Your task to perform on an android device: change text size in settings app Image 0: 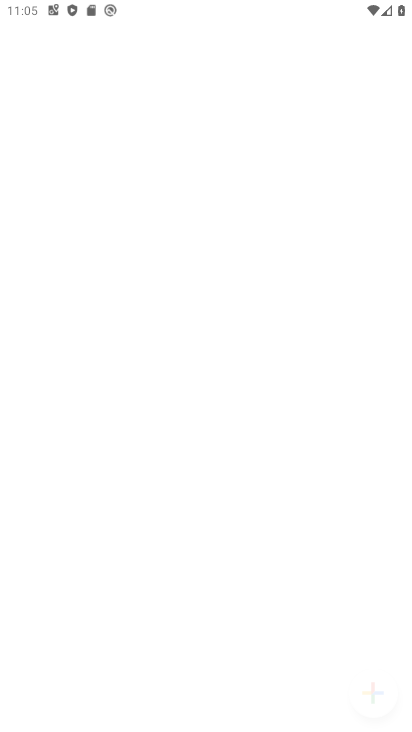
Step 0: drag from (339, 592) to (215, 134)
Your task to perform on an android device: change text size in settings app Image 1: 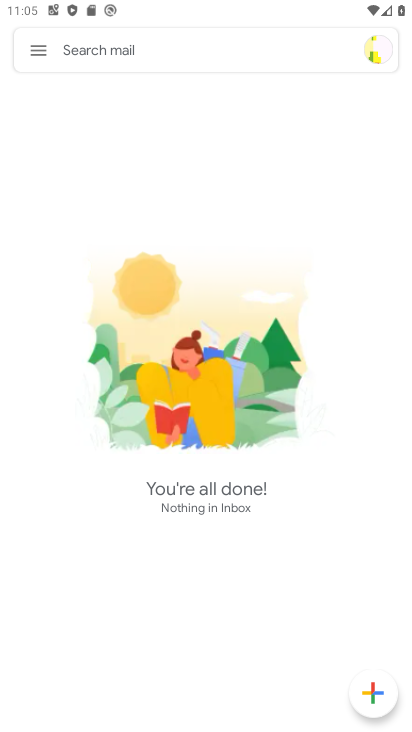
Step 1: press home button
Your task to perform on an android device: change text size in settings app Image 2: 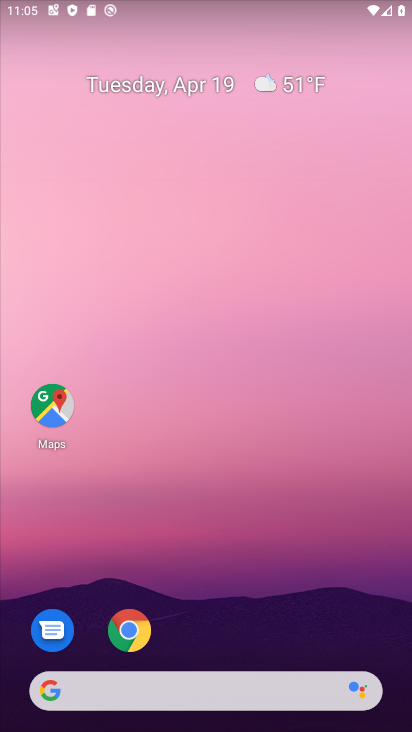
Step 2: drag from (294, 631) to (212, 224)
Your task to perform on an android device: change text size in settings app Image 3: 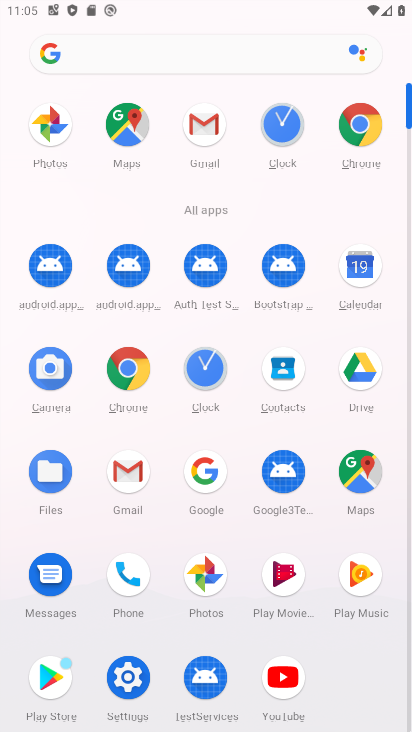
Step 3: click (126, 685)
Your task to perform on an android device: change text size in settings app Image 4: 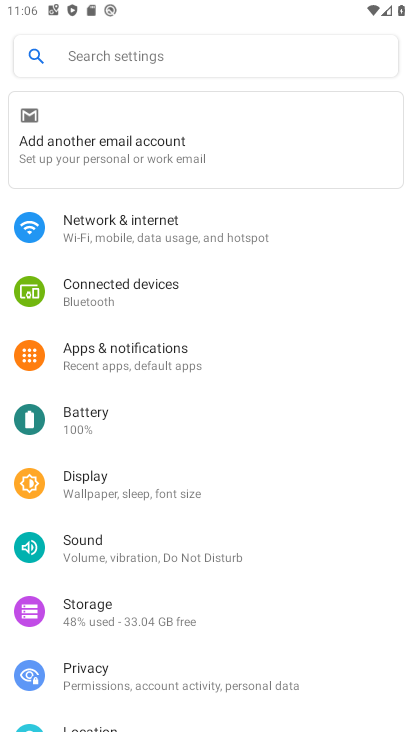
Step 4: click (228, 488)
Your task to perform on an android device: change text size in settings app Image 5: 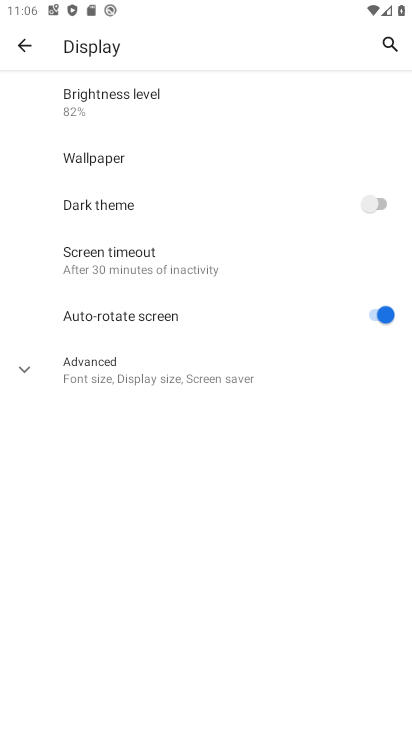
Step 5: click (264, 377)
Your task to perform on an android device: change text size in settings app Image 6: 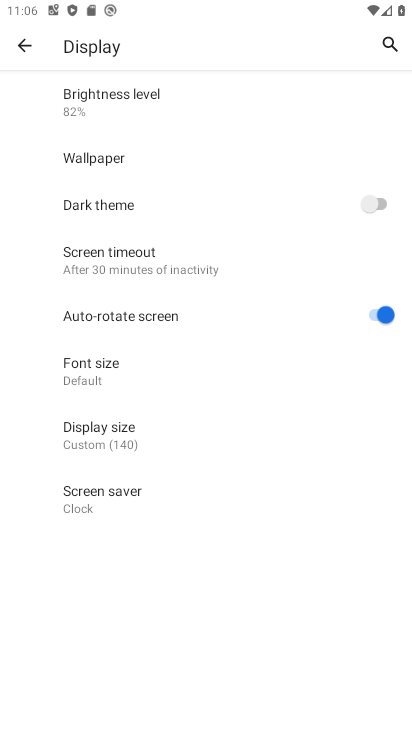
Step 6: click (264, 377)
Your task to perform on an android device: change text size in settings app Image 7: 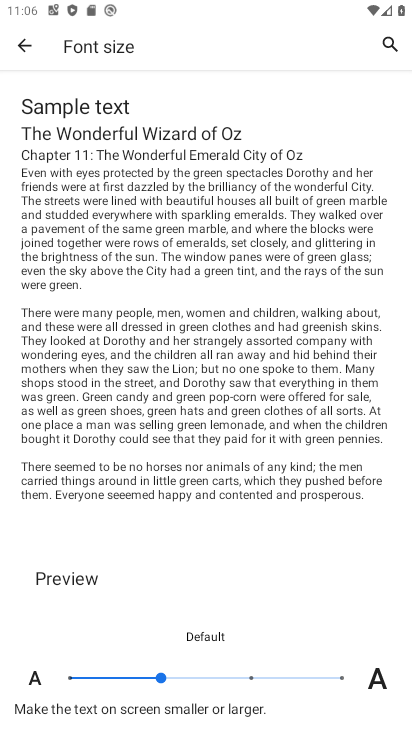
Step 7: click (253, 680)
Your task to perform on an android device: change text size in settings app Image 8: 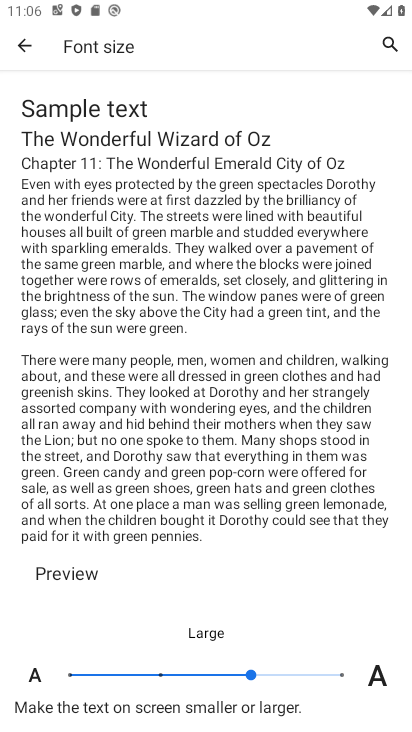
Step 8: task complete